Your task to perform on an android device: turn on priority inbox in the gmail app Image 0: 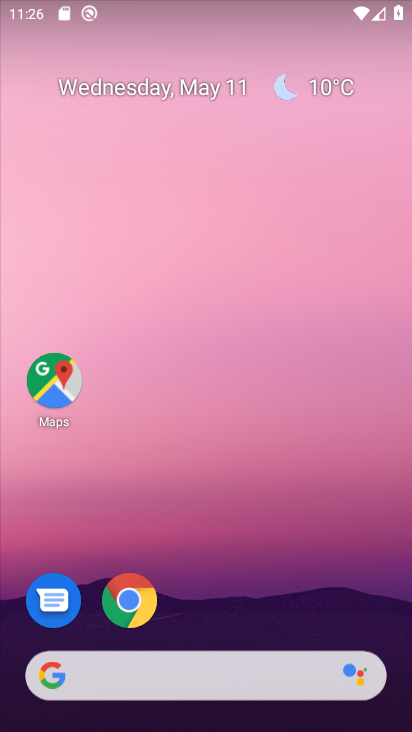
Step 0: drag from (193, 613) to (149, 99)
Your task to perform on an android device: turn on priority inbox in the gmail app Image 1: 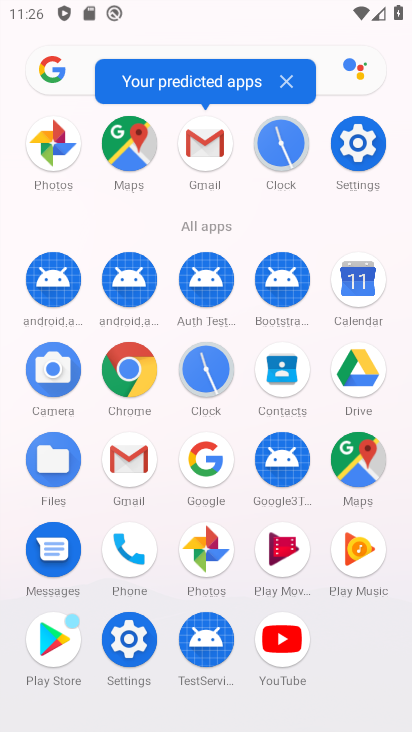
Step 1: click (131, 476)
Your task to perform on an android device: turn on priority inbox in the gmail app Image 2: 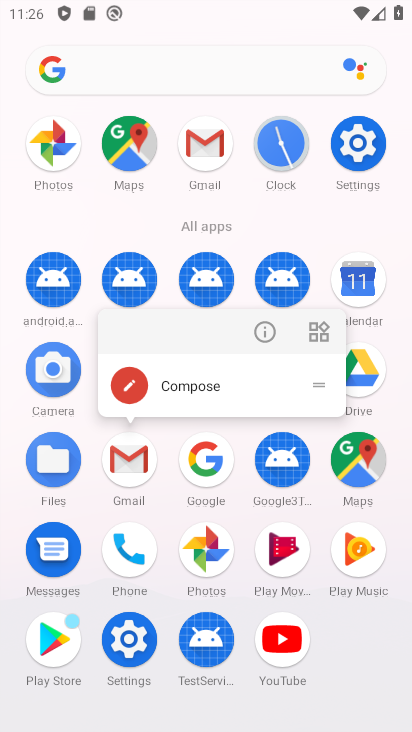
Step 2: click (131, 476)
Your task to perform on an android device: turn on priority inbox in the gmail app Image 3: 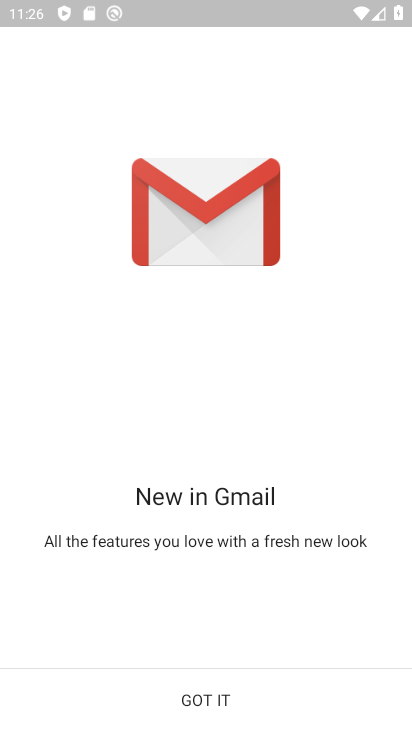
Step 3: click (211, 719)
Your task to perform on an android device: turn on priority inbox in the gmail app Image 4: 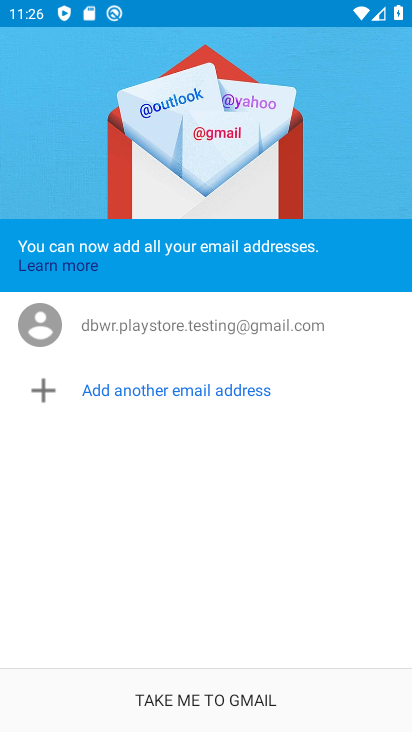
Step 4: click (205, 692)
Your task to perform on an android device: turn on priority inbox in the gmail app Image 5: 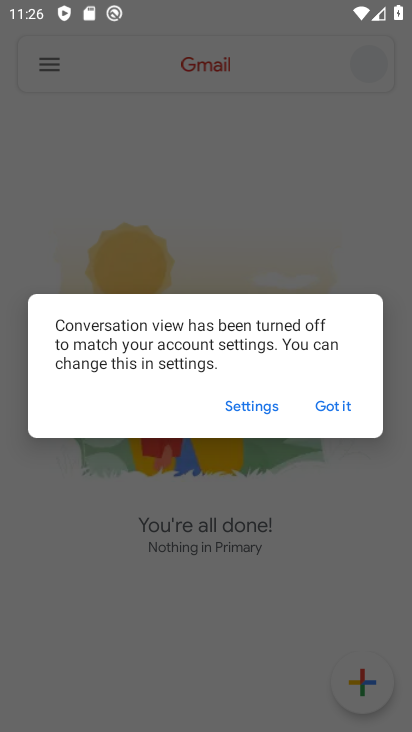
Step 5: click (331, 409)
Your task to perform on an android device: turn on priority inbox in the gmail app Image 6: 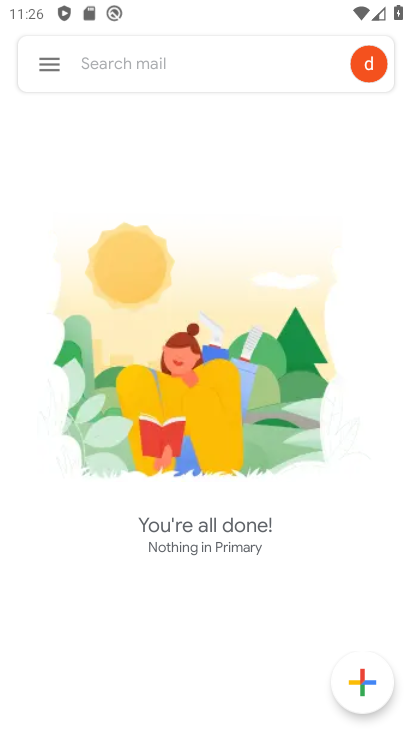
Step 6: click (50, 68)
Your task to perform on an android device: turn on priority inbox in the gmail app Image 7: 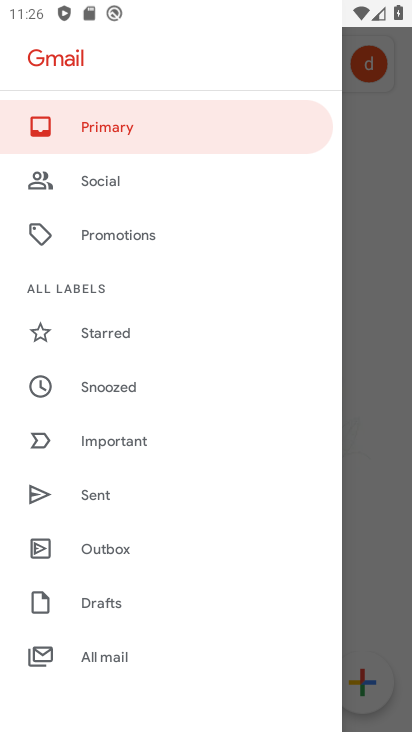
Step 7: drag from (106, 657) to (185, 214)
Your task to perform on an android device: turn on priority inbox in the gmail app Image 8: 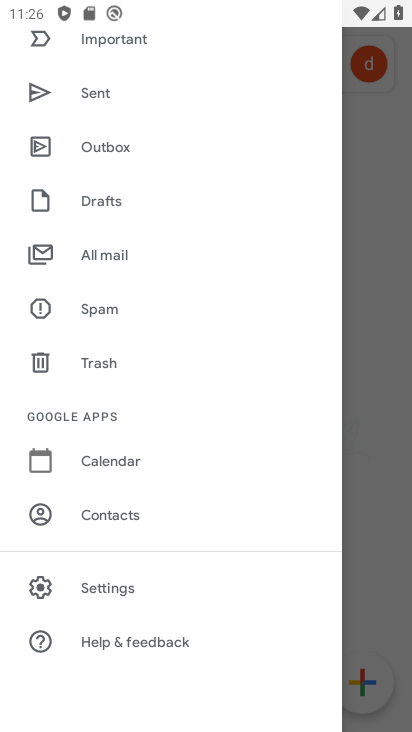
Step 8: click (109, 584)
Your task to perform on an android device: turn on priority inbox in the gmail app Image 9: 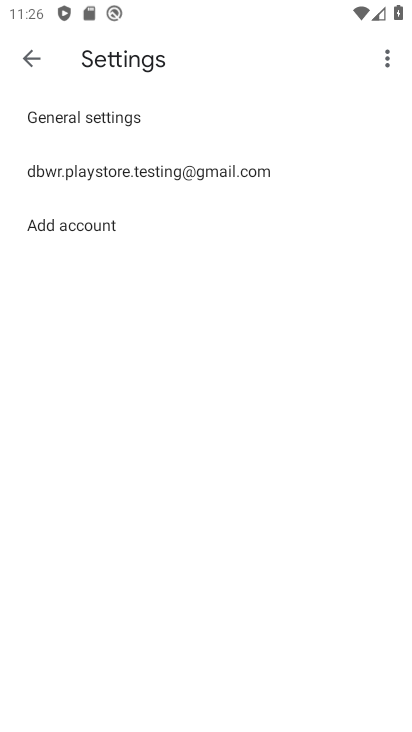
Step 9: click (207, 163)
Your task to perform on an android device: turn on priority inbox in the gmail app Image 10: 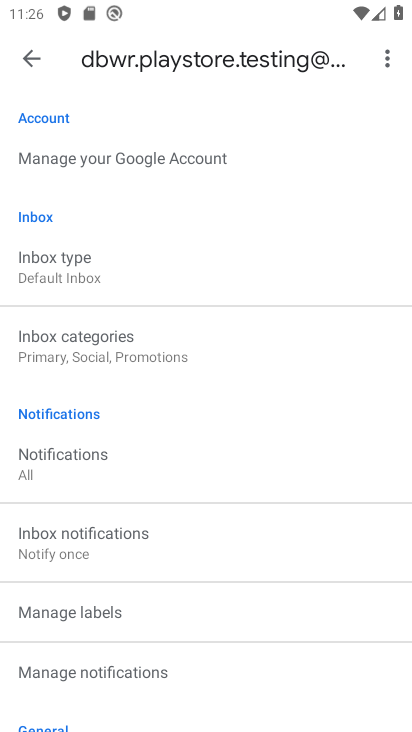
Step 10: click (154, 287)
Your task to perform on an android device: turn on priority inbox in the gmail app Image 11: 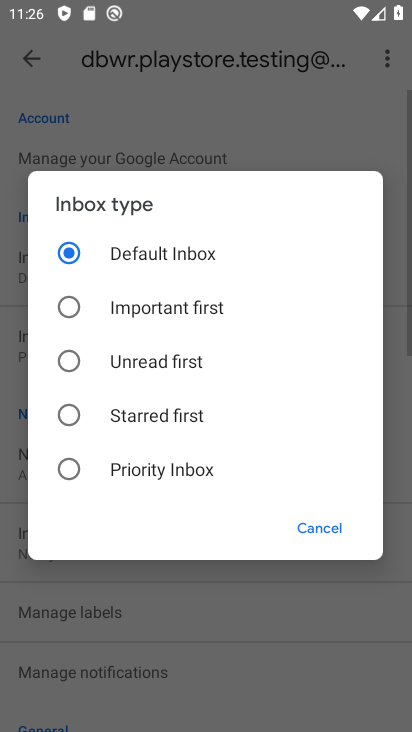
Step 11: click (117, 484)
Your task to perform on an android device: turn on priority inbox in the gmail app Image 12: 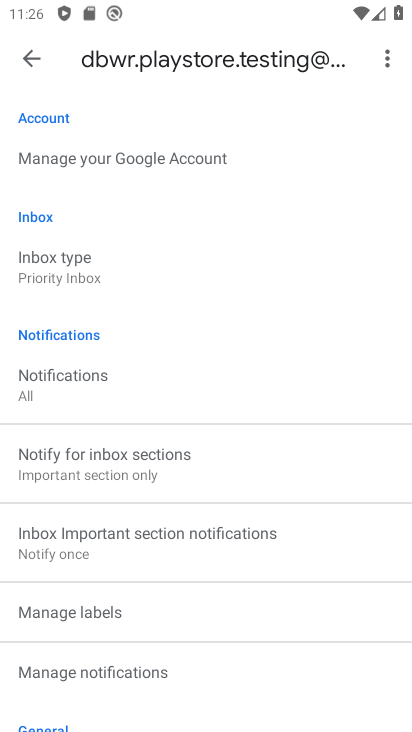
Step 12: task complete